Your task to perform on an android device: Go to wifi settings Image 0: 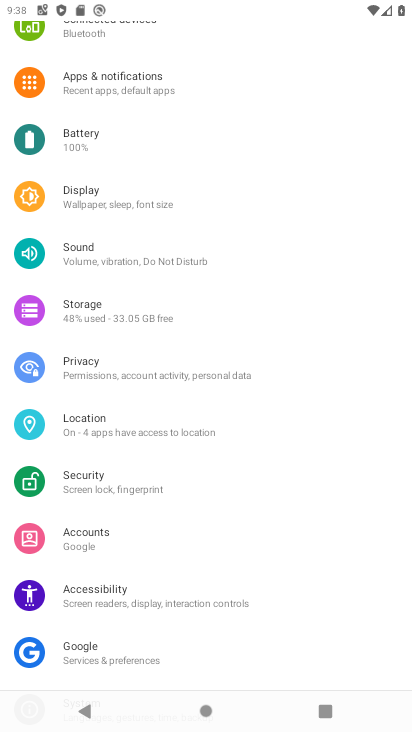
Step 0: press home button
Your task to perform on an android device: Go to wifi settings Image 1: 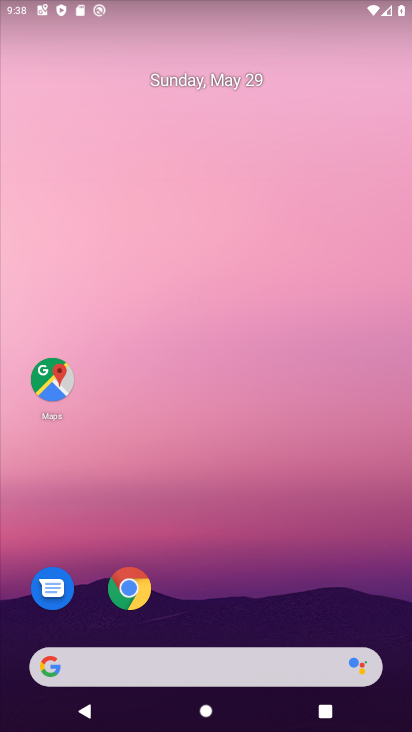
Step 1: drag from (318, 13) to (193, 487)
Your task to perform on an android device: Go to wifi settings Image 2: 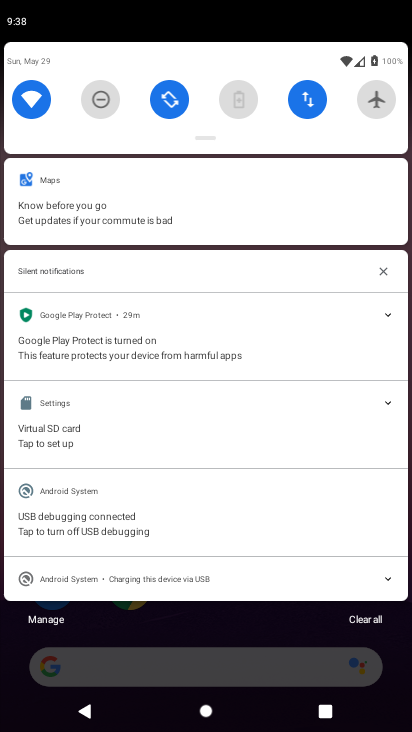
Step 2: click (31, 95)
Your task to perform on an android device: Go to wifi settings Image 3: 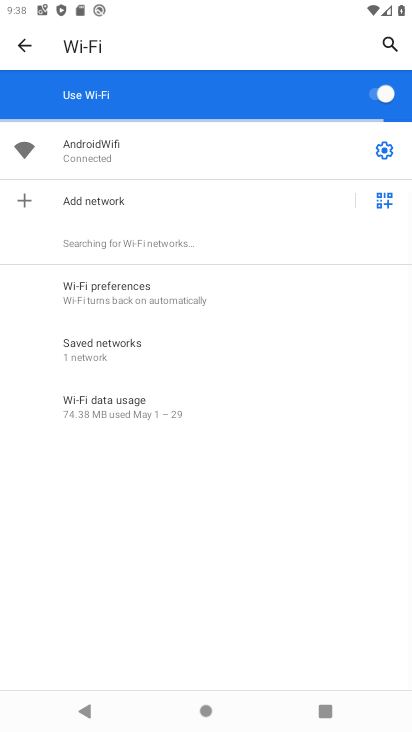
Step 3: click (382, 152)
Your task to perform on an android device: Go to wifi settings Image 4: 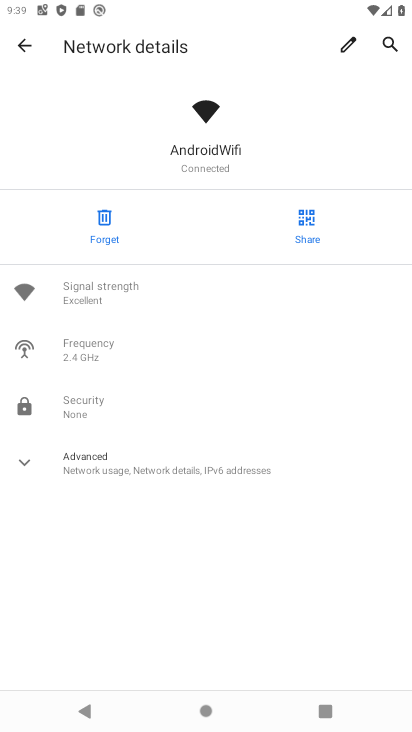
Step 4: task complete